Your task to perform on an android device: remove spam from my inbox in the gmail app Image 0: 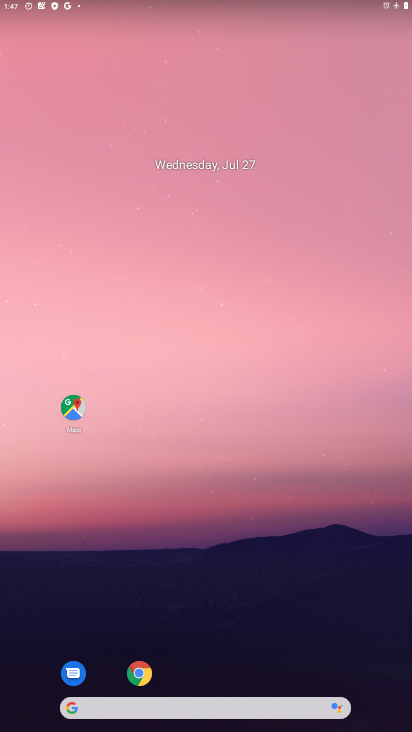
Step 0: drag from (238, 687) to (275, 2)
Your task to perform on an android device: remove spam from my inbox in the gmail app Image 1: 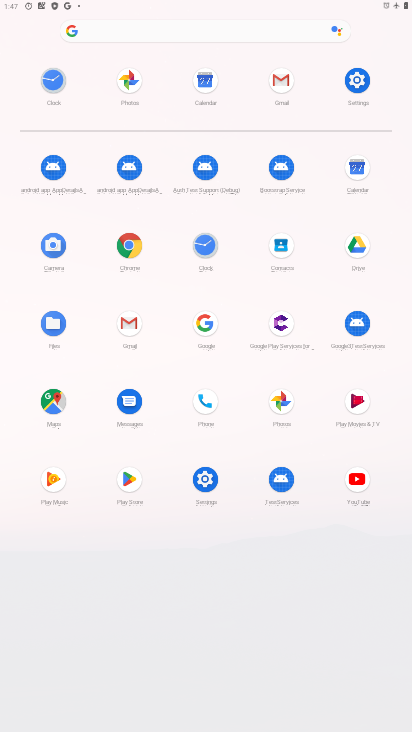
Step 1: click (277, 77)
Your task to perform on an android device: remove spam from my inbox in the gmail app Image 2: 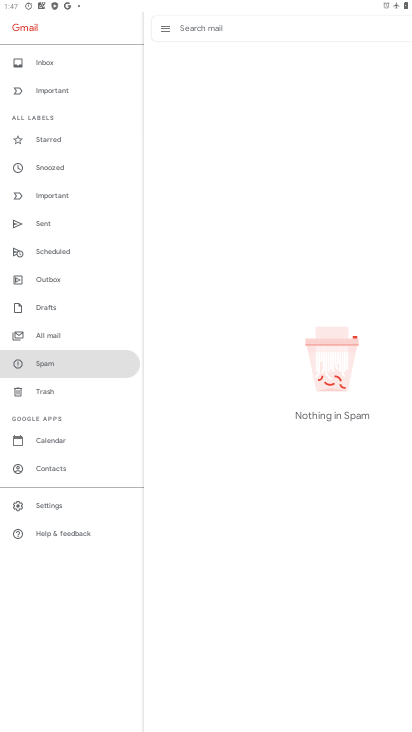
Step 2: task complete